Your task to perform on an android device: remove spam from my inbox in the gmail app Image 0: 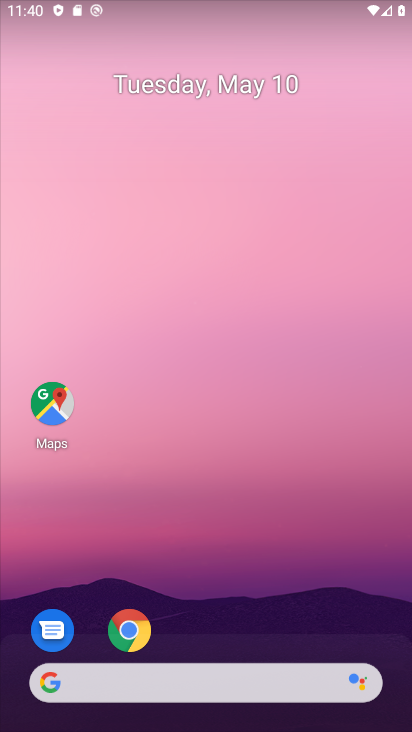
Step 0: drag from (190, 666) to (196, 1)
Your task to perform on an android device: remove spam from my inbox in the gmail app Image 1: 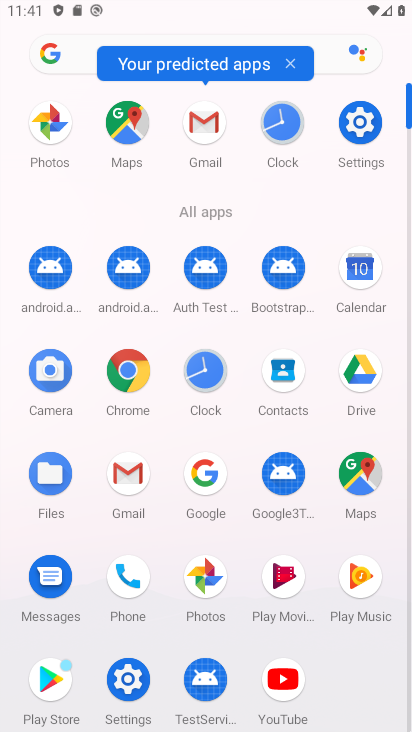
Step 1: click (135, 466)
Your task to perform on an android device: remove spam from my inbox in the gmail app Image 2: 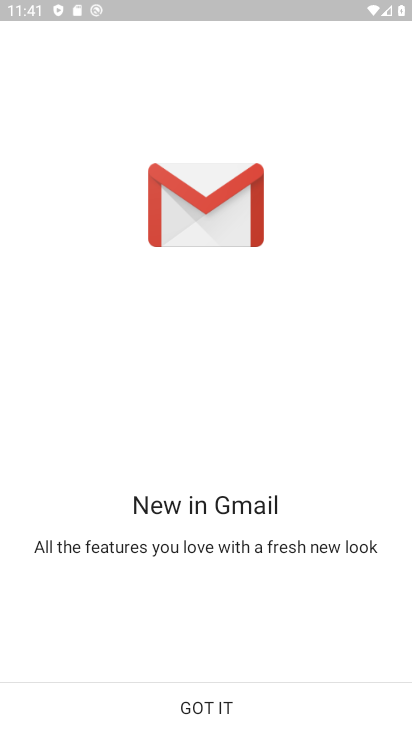
Step 2: click (215, 706)
Your task to perform on an android device: remove spam from my inbox in the gmail app Image 3: 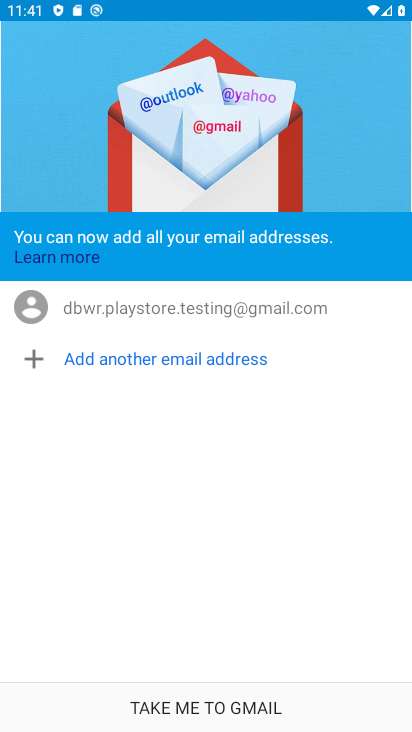
Step 3: click (156, 687)
Your task to perform on an android device: remove spam from my inbox in the gmail app Image 4: 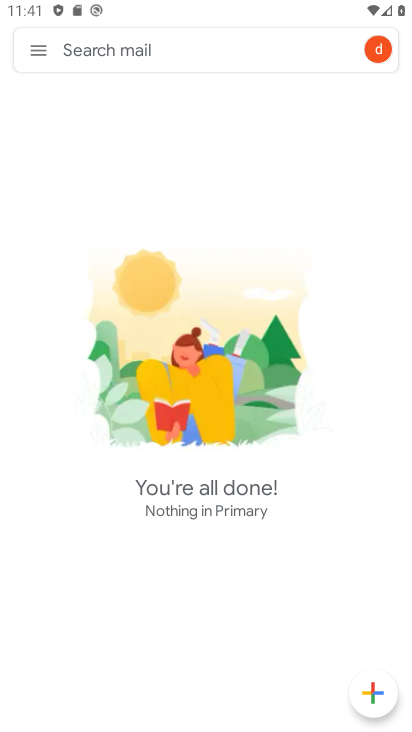
Step 4: click (42, 58)
Your task to perform on an android device: remove spam from my inbox in the gmail app Image 5: 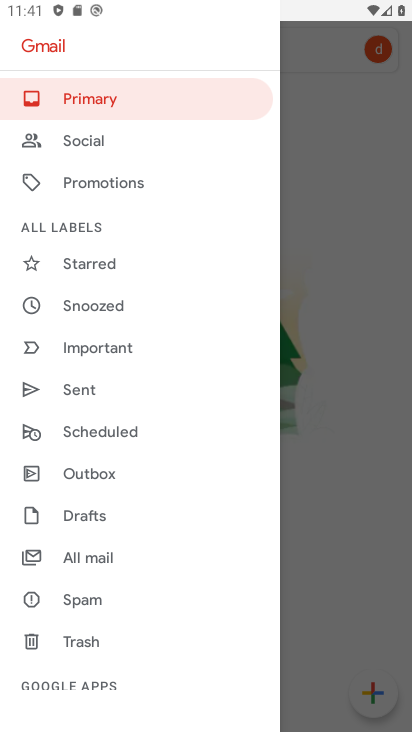
Step 5: click (96, 596)
Your task to perform on an android device: remove spam from my inbox in the gmail app Image 6: 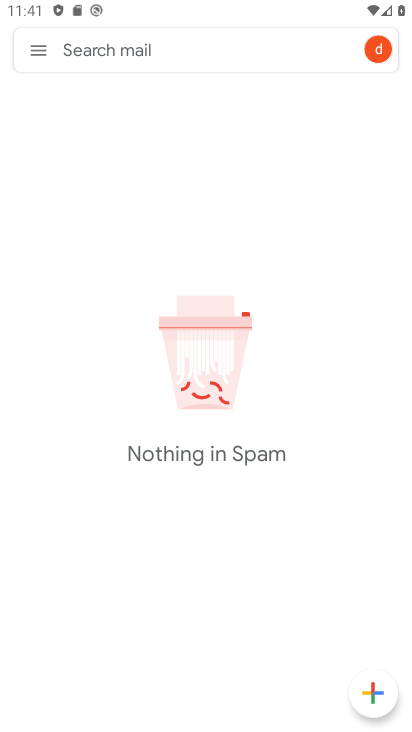
Step 6: task complete